Your task to perform on an android device: Do I have any events today? Image 0: 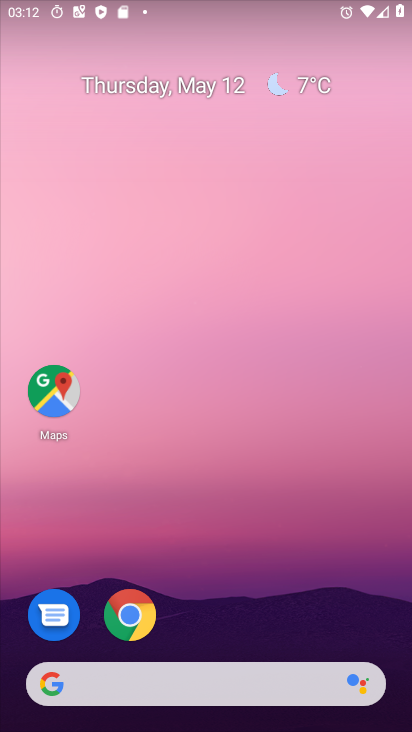
Step 0: drag from (214, 674) to (186, 99)
Your task to perform on an android device: Do I have any events today? Image 1: 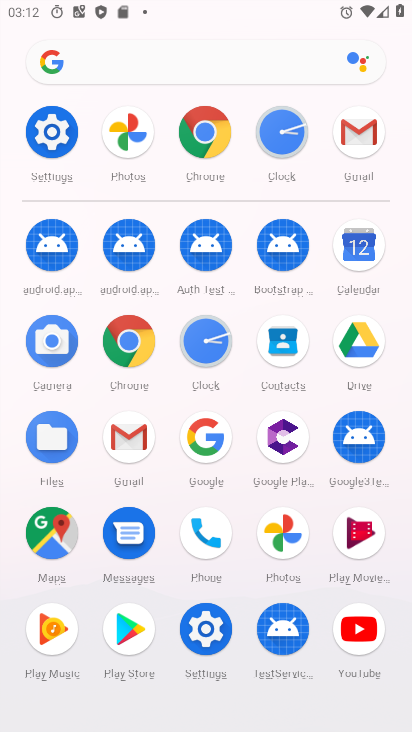
Step 1: click (373, 253)
Your task to perform on an android device: Do I have any events today? Image 2: 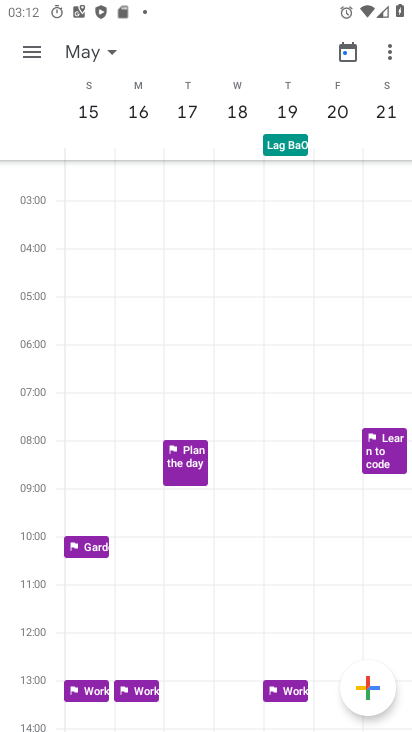
Step 2: drag from (118, 298) to (397, 302)
Your task to perform on an android device: Do I have any events today? Image 3: 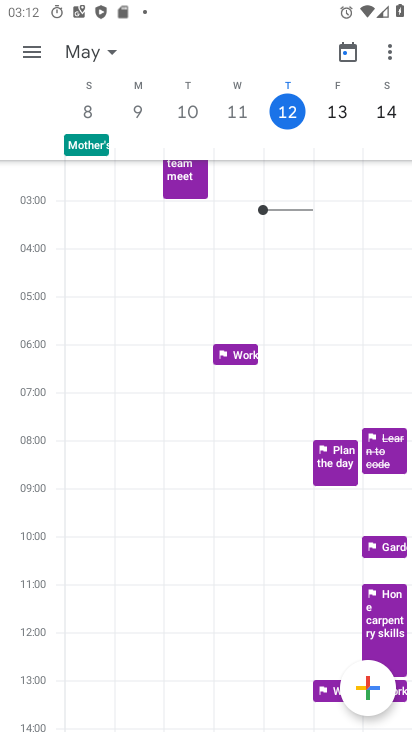
Step 3: click (21, 64)
Your task to perform on an android device: Do I have any events today? Image 4: 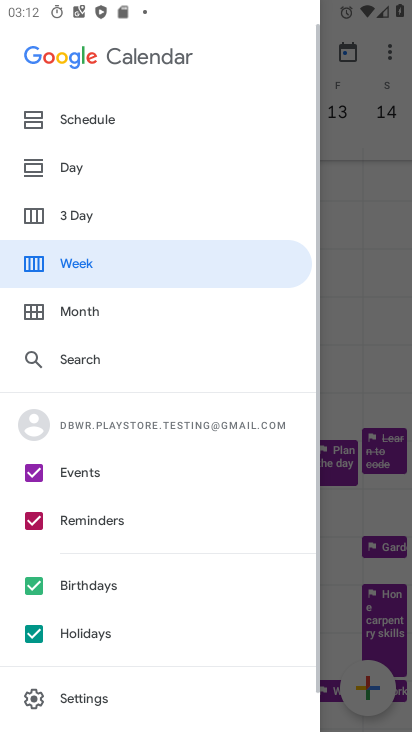
Step 4: click (102, 113)
Your task to perform on an android device: Do I have any events today? Image 5: 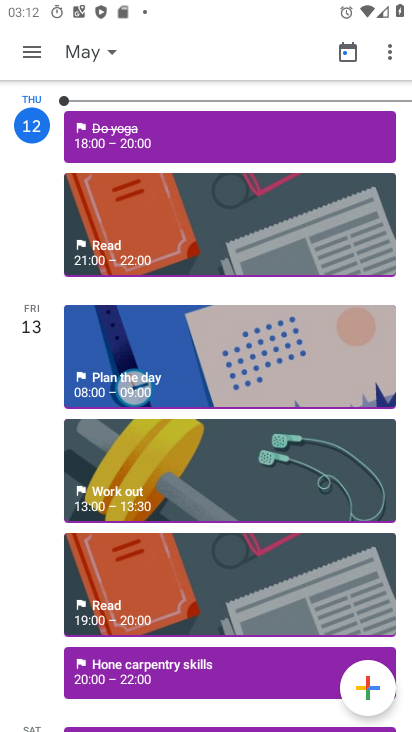
Step 5: task complete